Your task to perform on an android device: uninstall "PlayWell" Image 0: 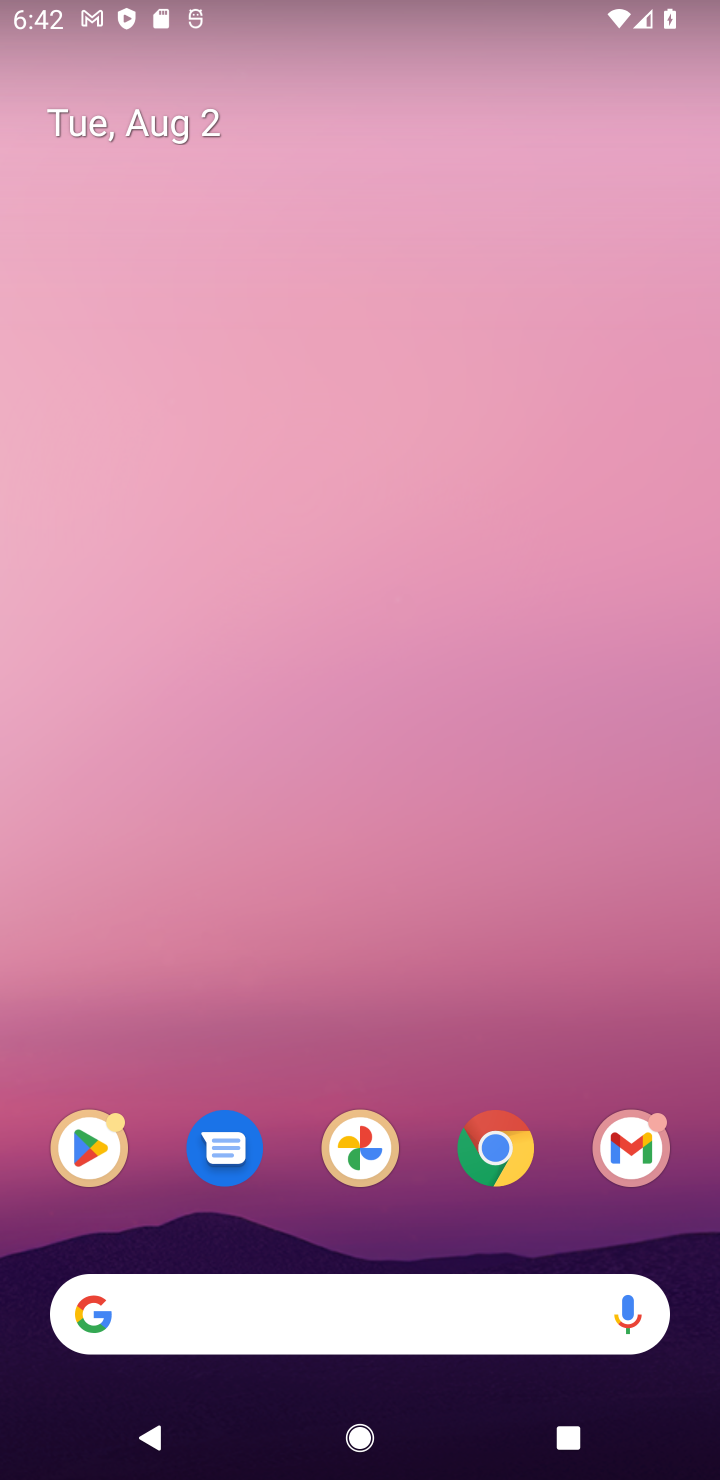
Step 0: drag from (572, 988) to (311, 18)
Your task to perform on an android device: uninstall "PlayWell" Image 1: 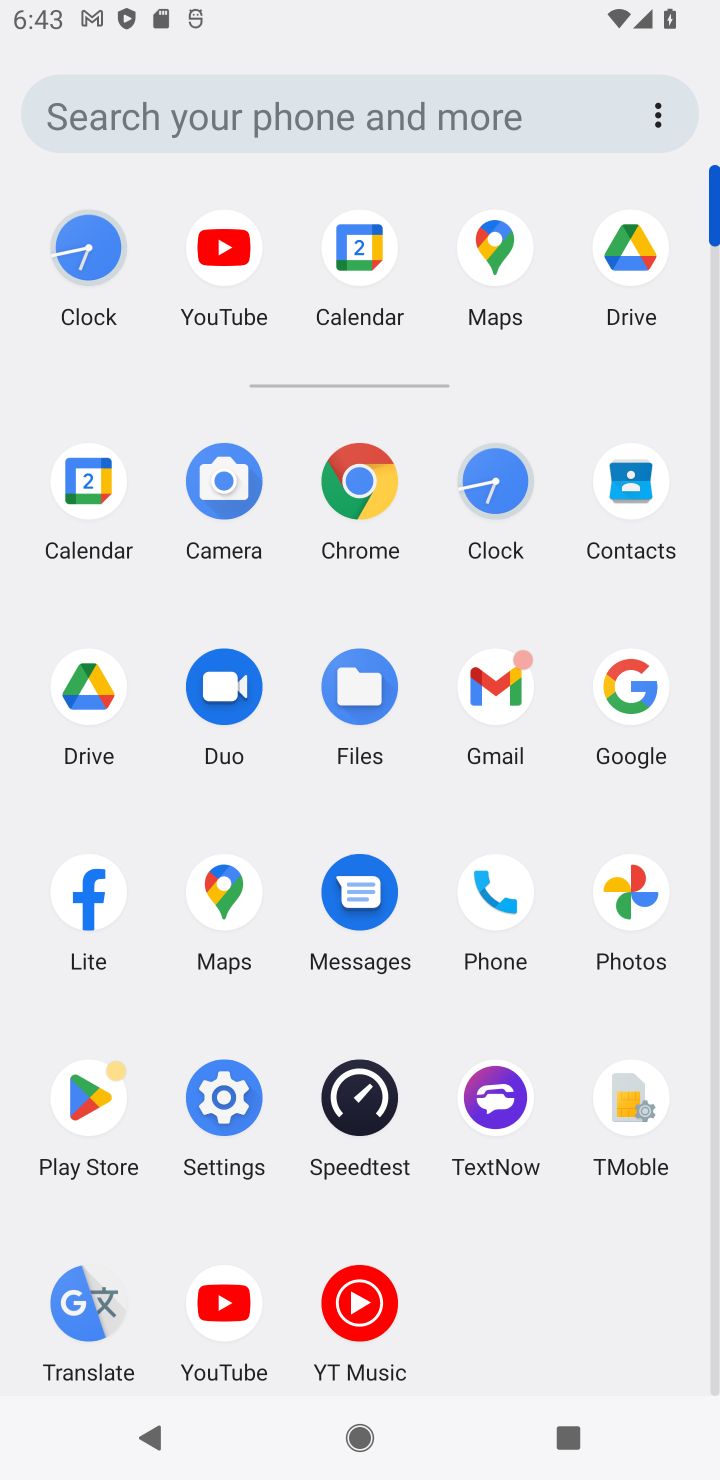
Step 1: click (129, 1116)
Your task to perform on an android device: uninstall "PlayWell" Image 2: 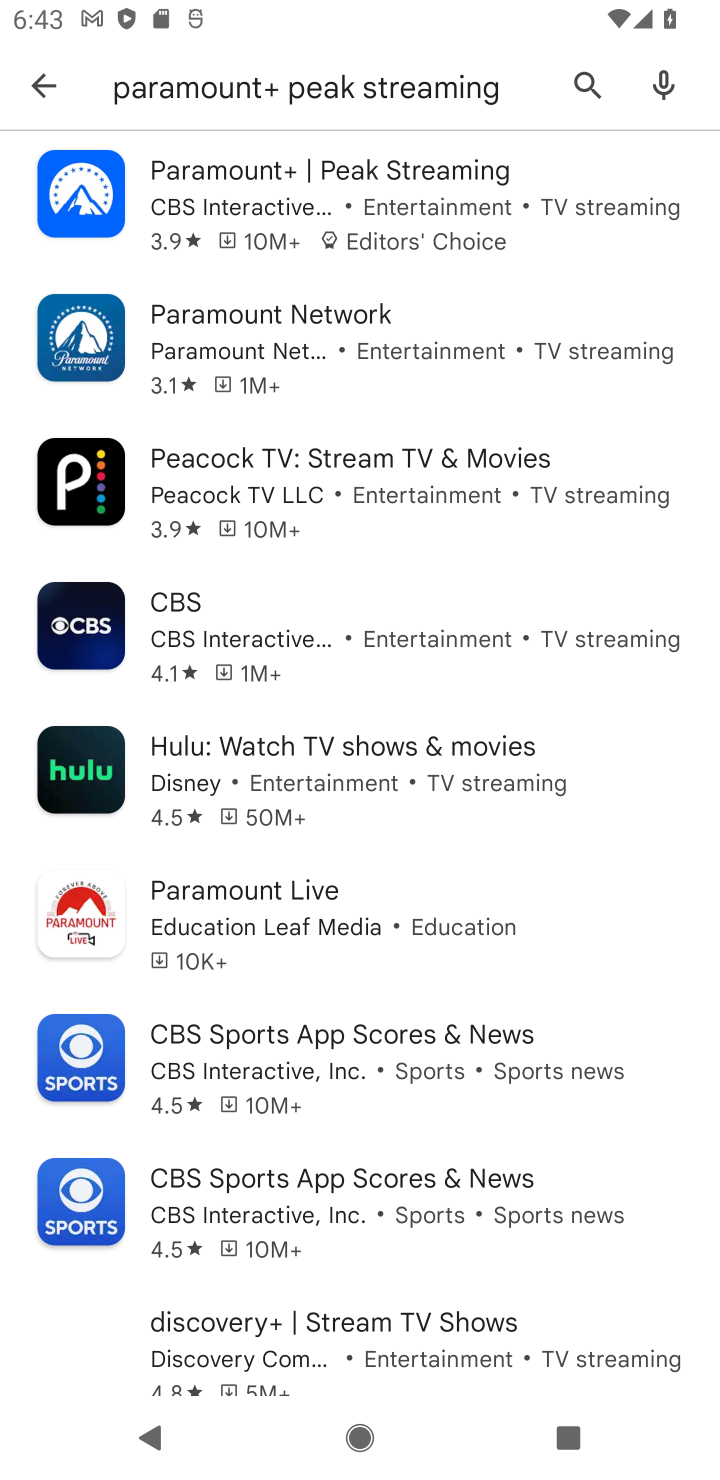
Step 2: press back button
Your task to perform on an android device: uninstall "PlayWell" Image 3: 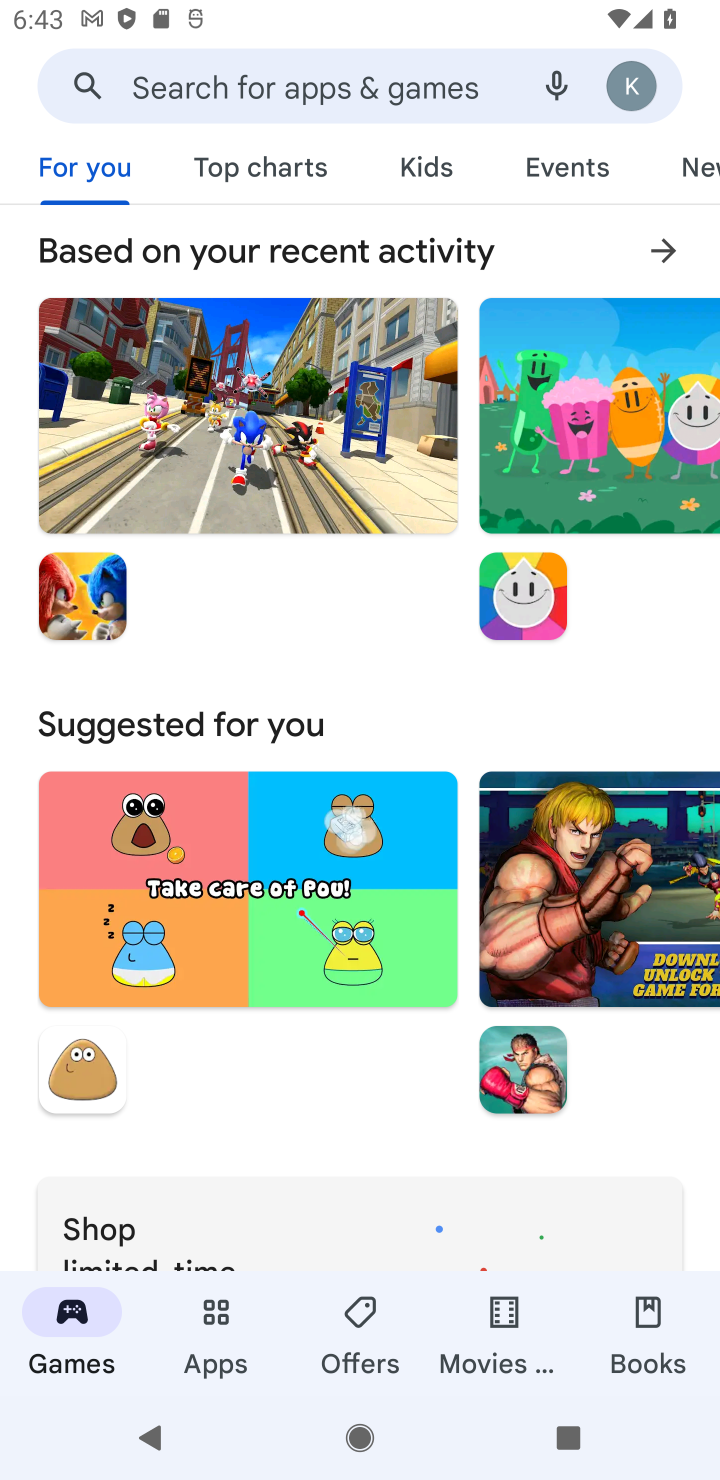
Step 3: click (224, 77)
Your task to perform on an android device: uninstall "PlayWell" Image 4: 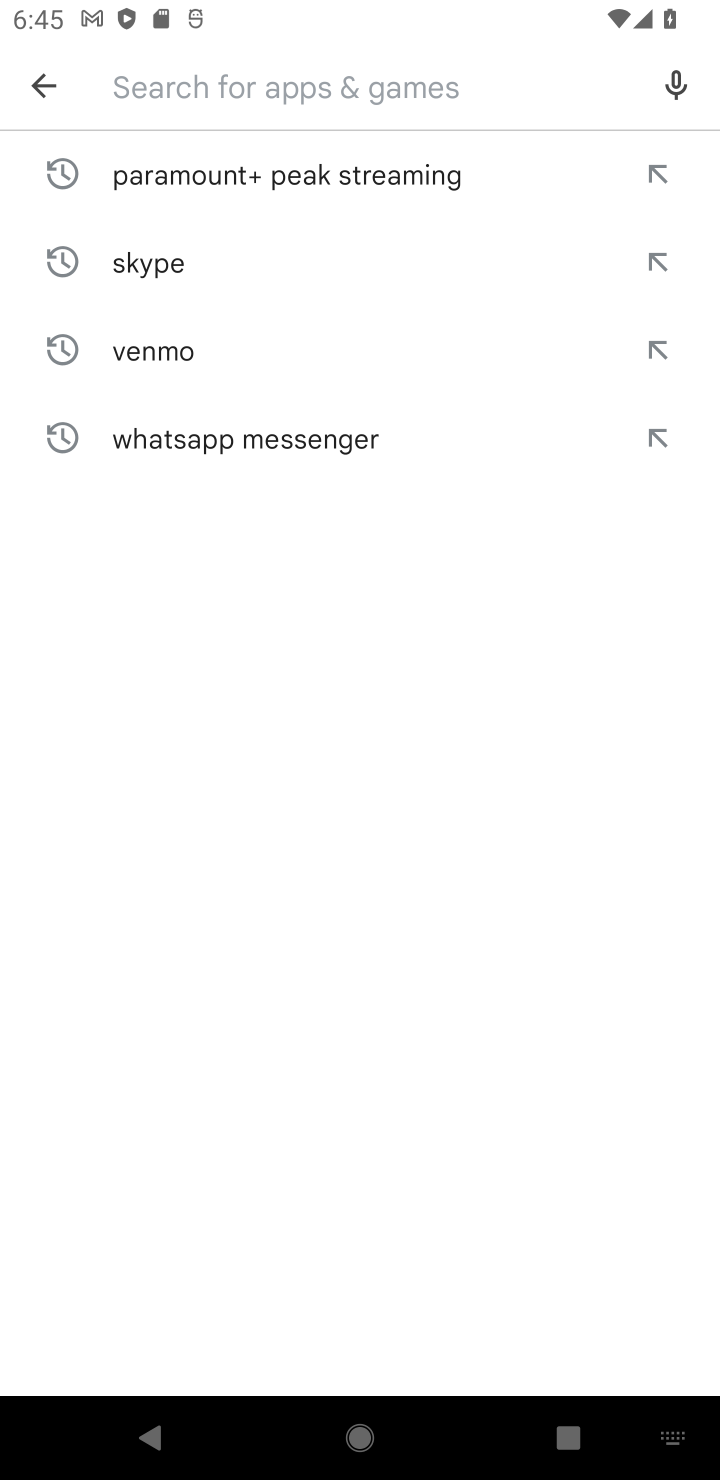
Step 4: type "PlayWell"
Your task to perform on an android device: uninstall "PlayWell" Image 5: 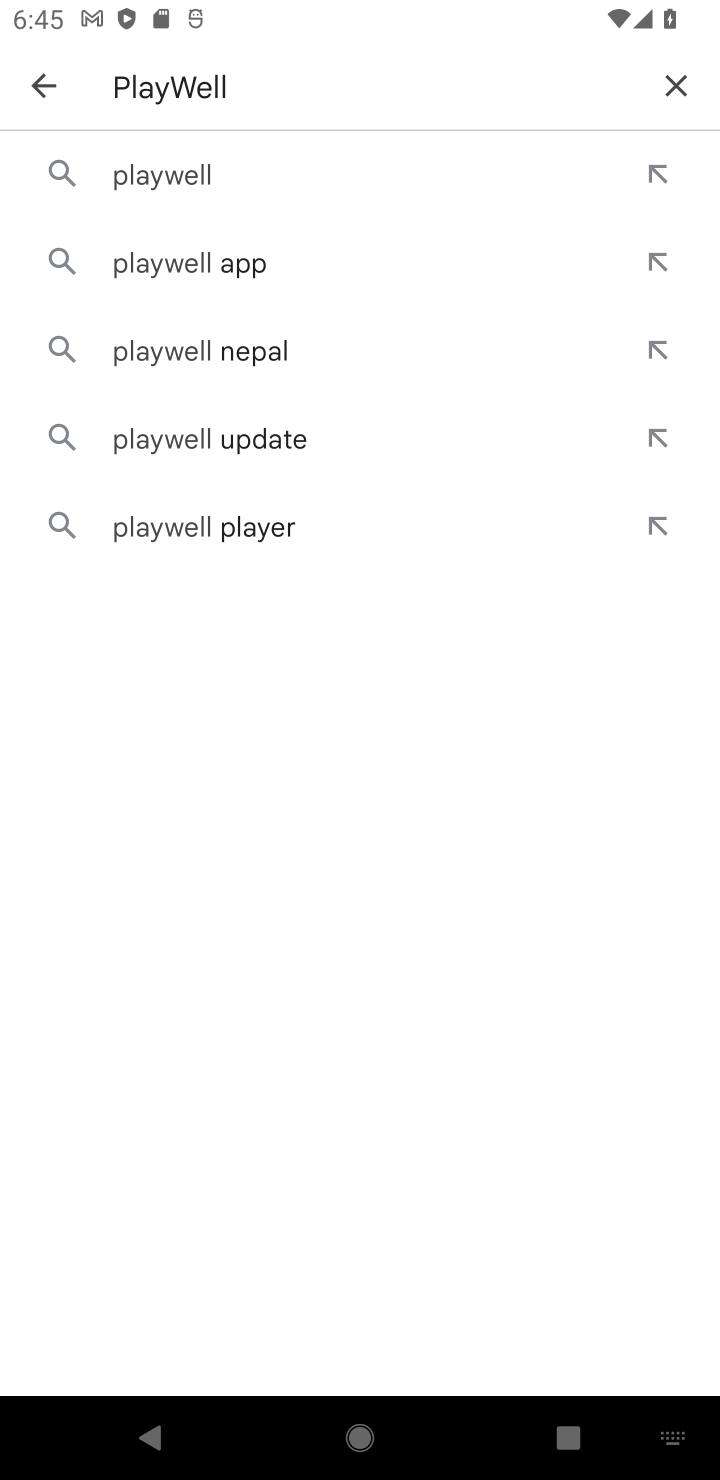
Step 5: click (166, 186)
Your task to perform on an android device: uninstall "PlayWell" Image 6: 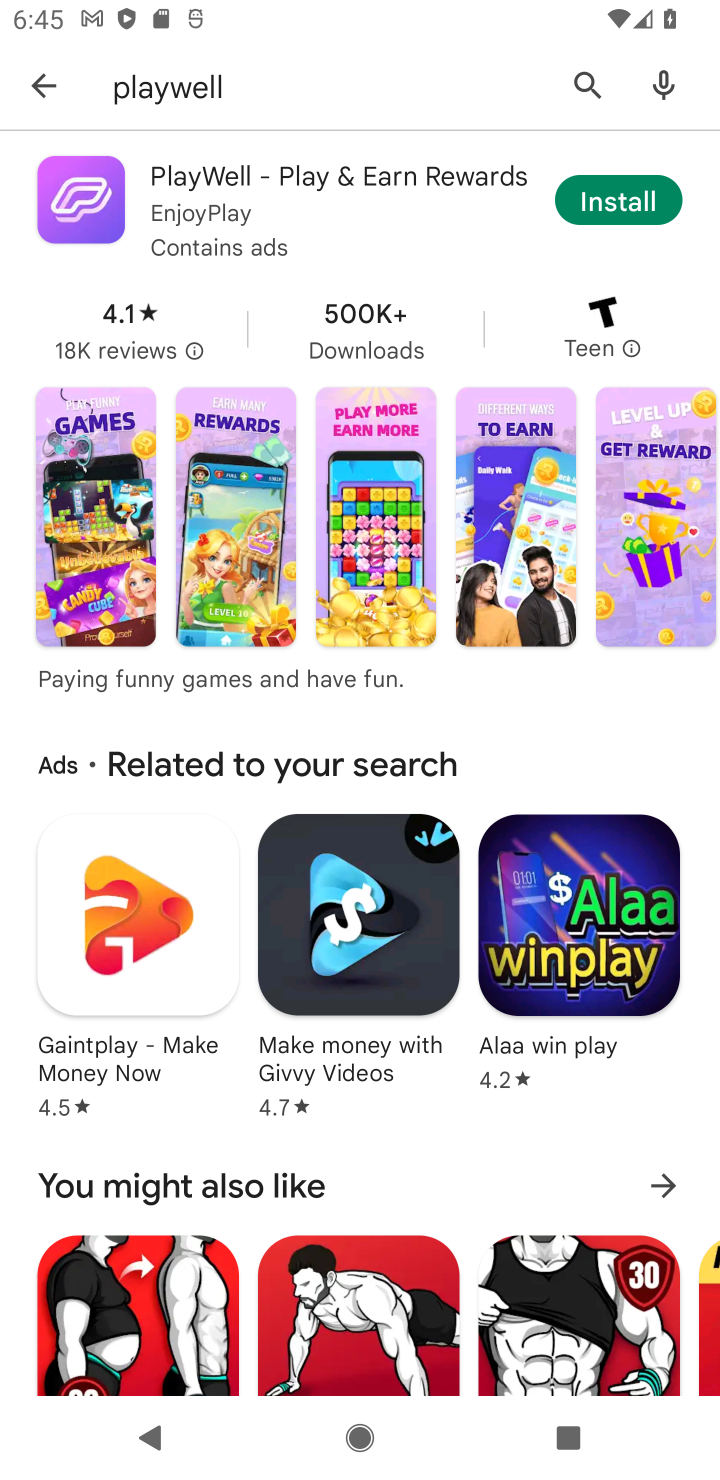
Step 6: task complete